Your task to perform on an android device: set the stopwatch Image 0: 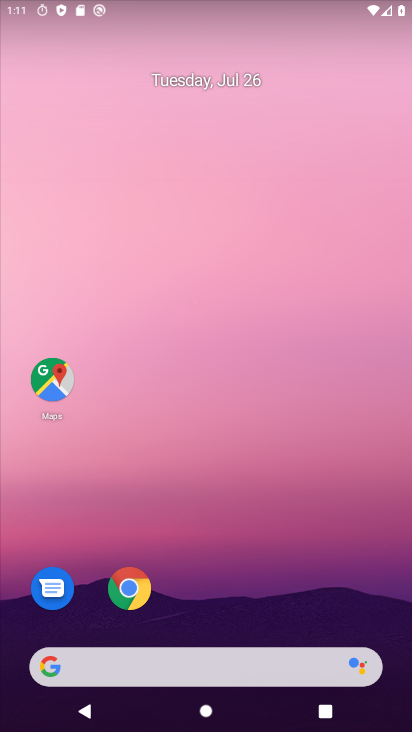
Step 0: drag from (374, 620) to (297, 90)
Your task to perform on an android device: set the stopwatch Image 1: 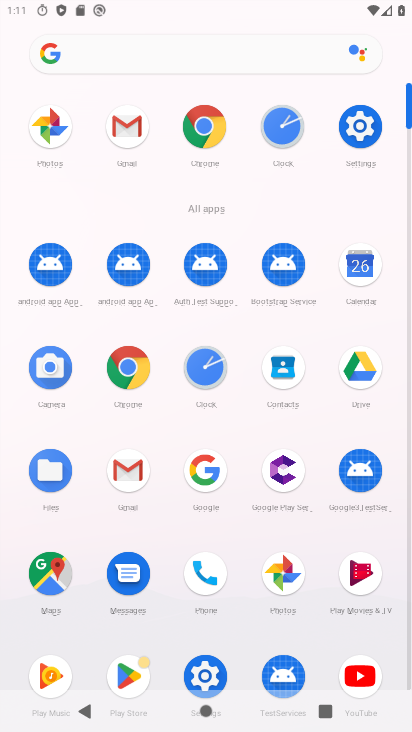
Step 1: click (275, 124)
Your task to perform on an android device: set the stopwatch Image 2: 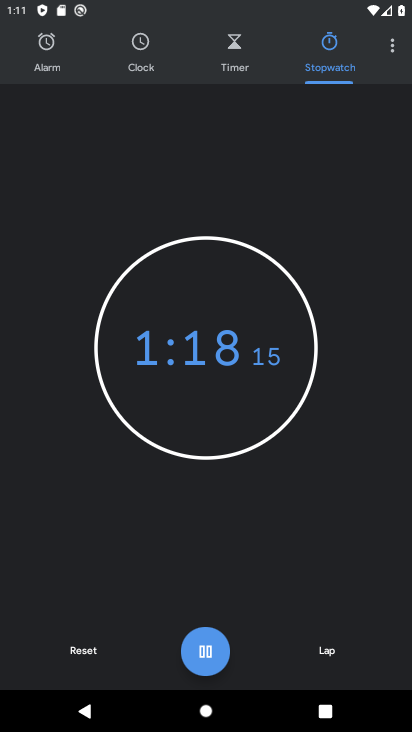
Step 2: click (197, 648)
Your task to perform on an android device: set the stopwatch Image 3: 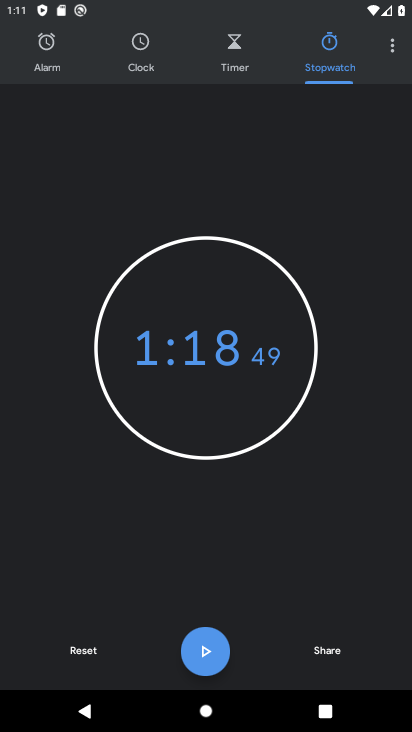
Step 3: click (69, 657)
Your task to perform on an android device: set the stopwatch Image 4: 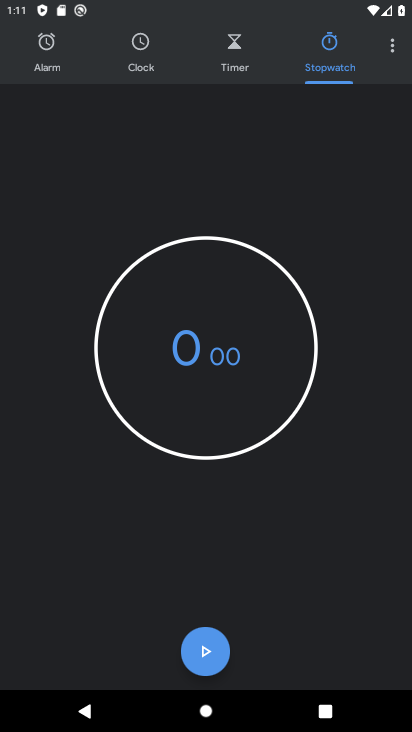
Step 4: click (220, 637)
Your task to perform on an android device: set the stopwatch Image 5: 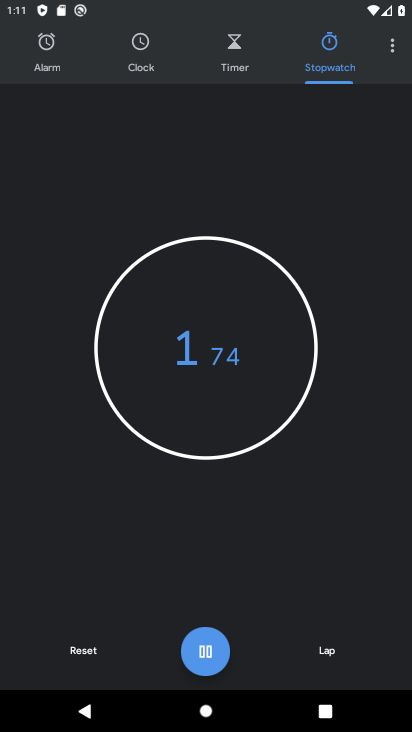
Step 5: task complete